Your task to perform on an android device: turn off priority inbox in the gmail app Image 0: 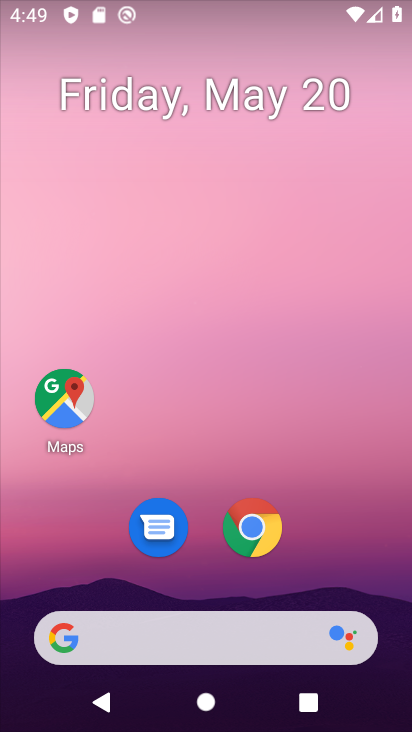
Step 0: drag from (332, 637) to (274, 19)
Your task to perform on an android device: turn off priority inbox in the gmail app Image 1: 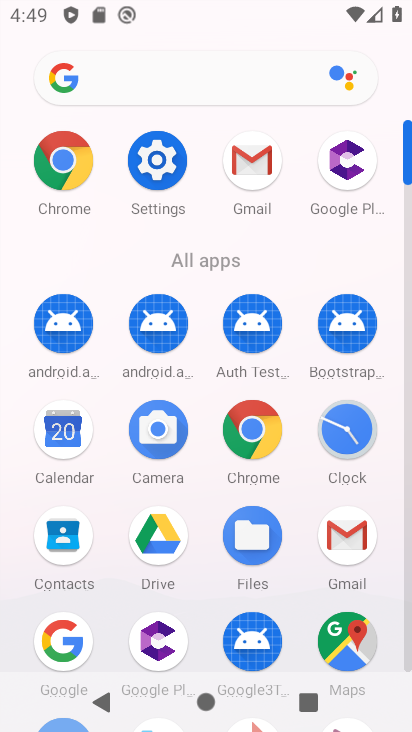
Step 1: click (357, 515)
Your task to perform on an android device: turn off priority inbox in the gmail app Image 2: 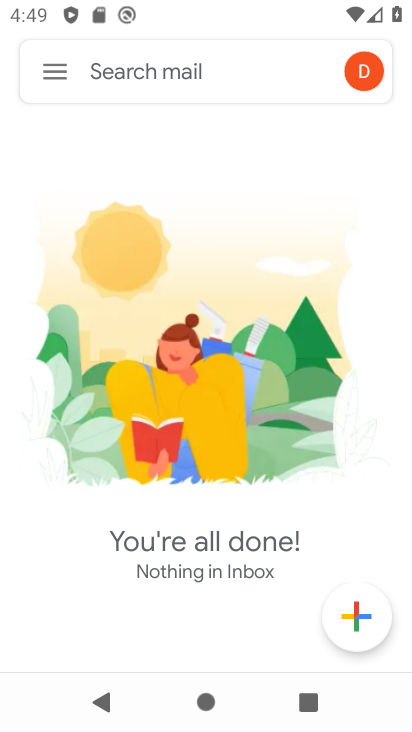
Step 2: click (56, 70)
Your task to perform on an android device: turn off priority inbox in the gmail app Image 3: 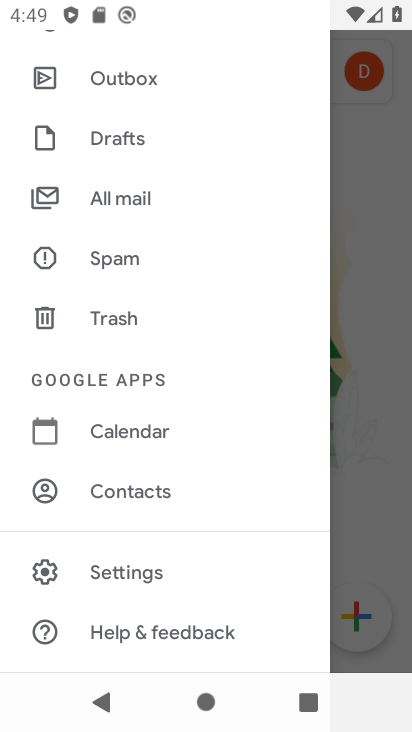
Step 3: click (143, 583)
Your task to perform on an android device: turn off priority inbox in the gmail app Image 4: 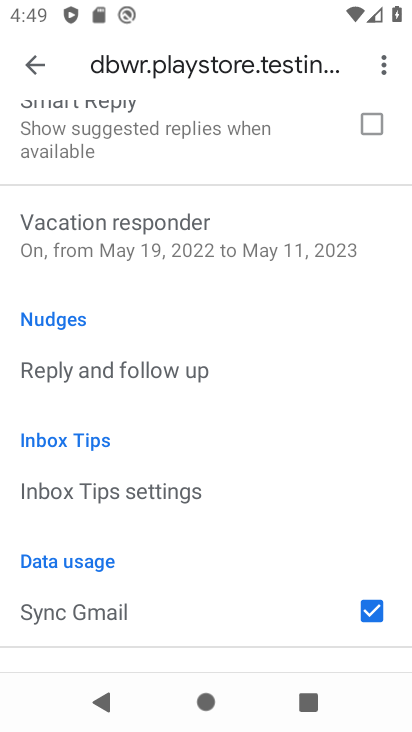
Step 4: drag from (145, 182) to (175, 679)
Your task to perform on an android device: turn off priority inbox in the gmail app Image 5: 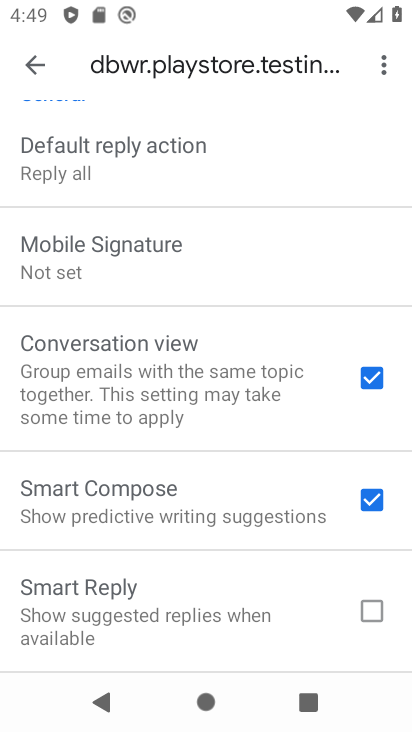
Step 5: drag from (145, 187) to (173, 726)
Your task to perform on an android device: turn off priority inbox in the gmail app Image 6: 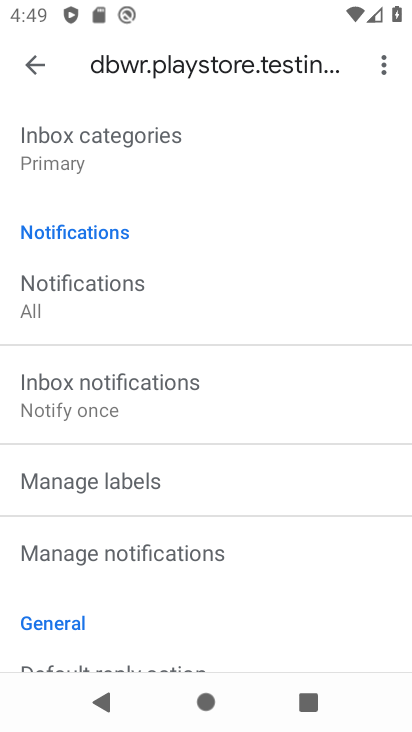
Step 6: drag from (118, 182) to (128, 716)
Your task to perform on an android device: turn off priority inbox in the gmail app Image 7: 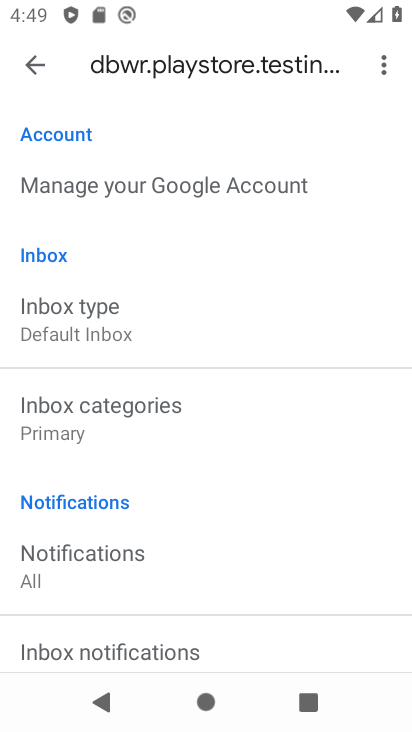
Step 7: click (129, 329)
Your task to perform on an android device: turn off priority inbox in the gmail app Image 8: 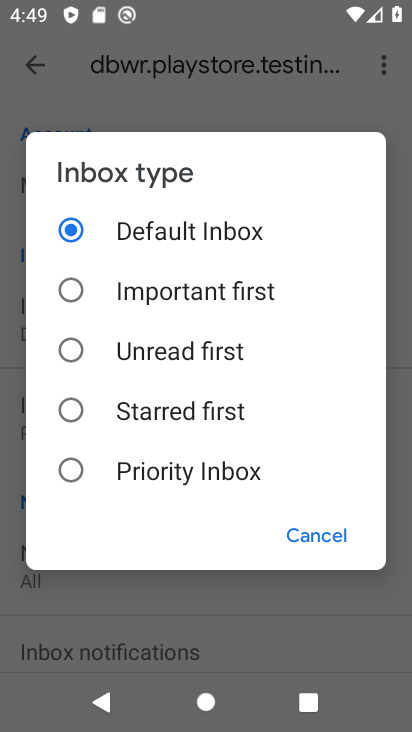
Step 8: click (80, 464)
Your task to perform on an android device: turn off priority inbox in the gmail app Image 9: 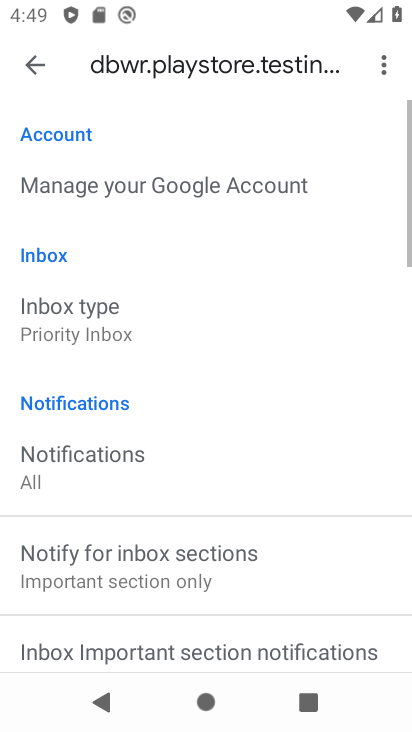
Step 9: click (74, 332)
Your task to perform on an android device: turn off priority inbox in the gmail app Image 10: 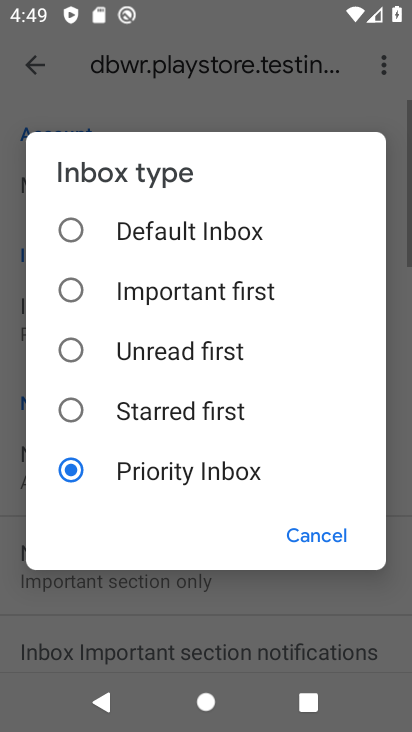
Step 10: click (111, 240)
Your task to perform on an android device: turn off priority inbox in the gmail app Image 11: 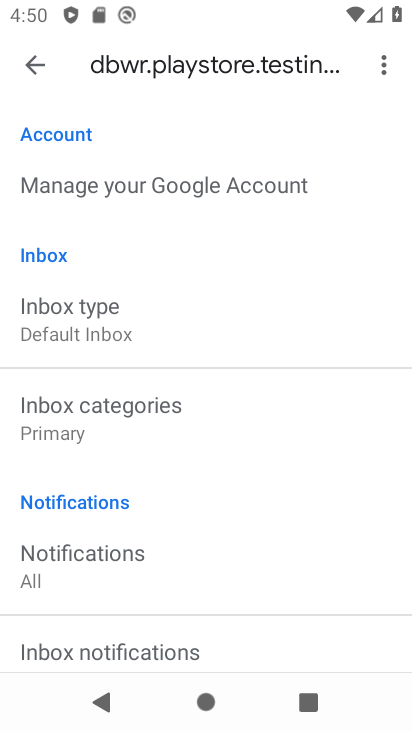
Step 11: task complete